Your task to perform on an android device: Go to sound settings Image 0: 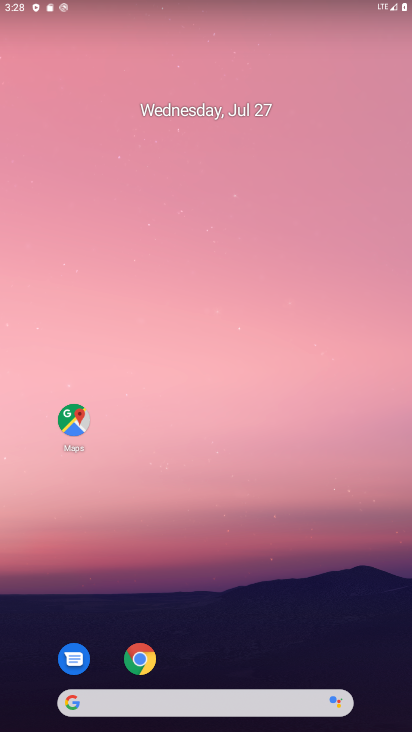
Step 0: drag from (241, 671) to (223, 0)
Your task to perform on an android device: Go to sound settings Image 1: 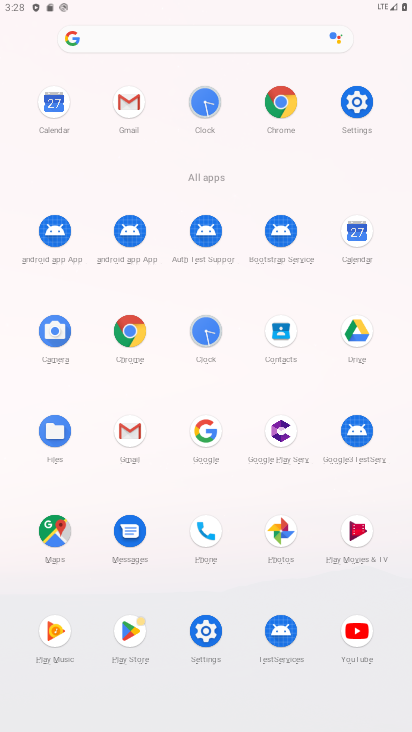
Step 1: click (353, 99)
Your task to perform on an android device: Go to sound settings Image 2: 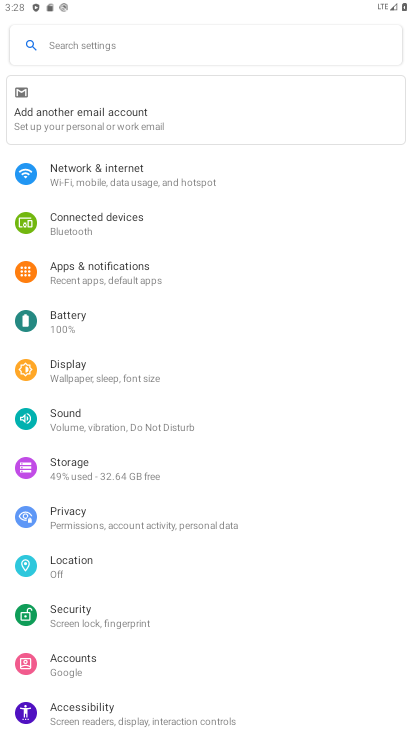
Step 2: click (81, 423)
Your task to perform on an android device: Go to sound settings Image 3: 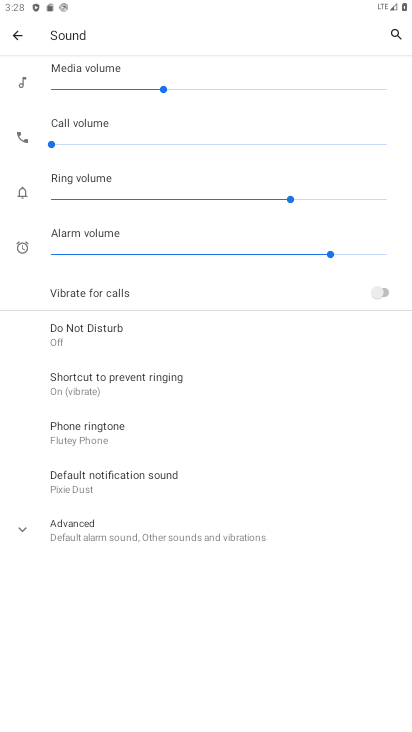
Step 3: task complete